Your task to perform on an android device: read, delete, or share a saved page in the chrome app Image 0: 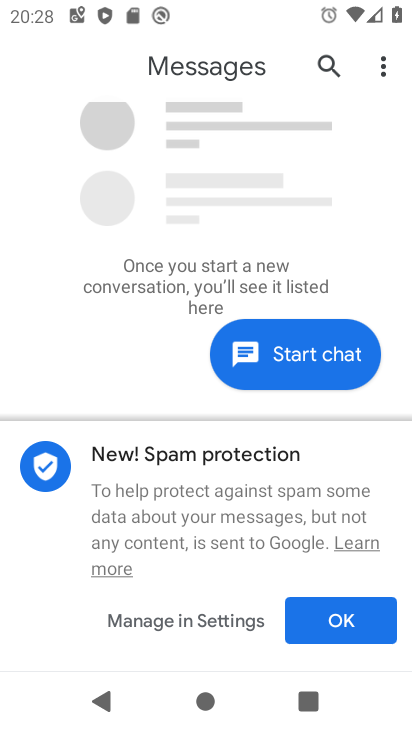
Step 0: press home button
Your task to perform on an android device: read, delete, or share a saved page in the chrome app Image 1: 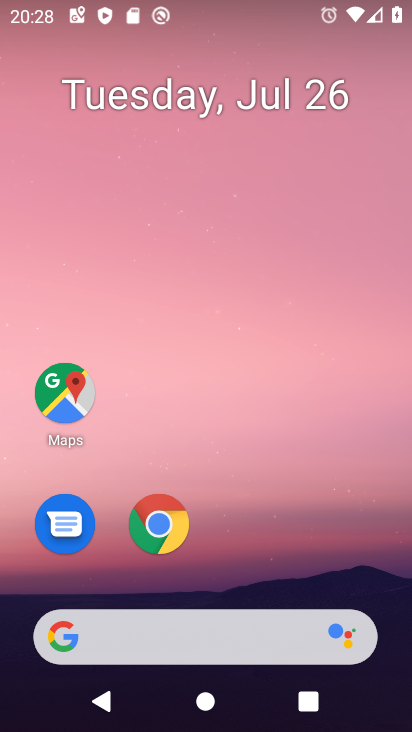
Step 1: click (157, 527)
Your task to perform on an android device: read, delete, or share a saved page in the chrome app Image 2: 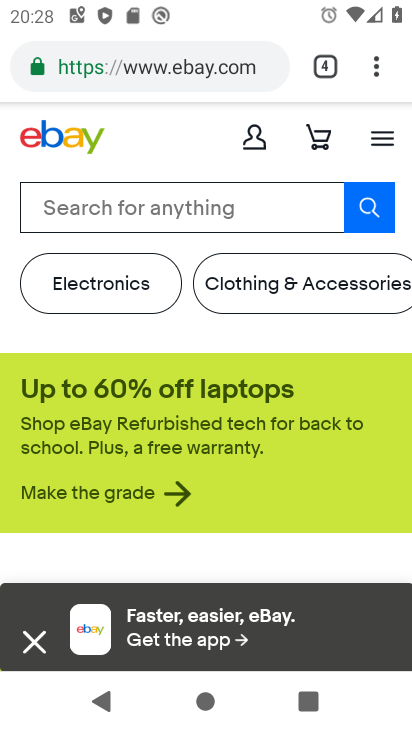
Step 2: click (371, 64)
Your task to perform on an android device: read, delete, or share a saved page in the chrome app Image 3: 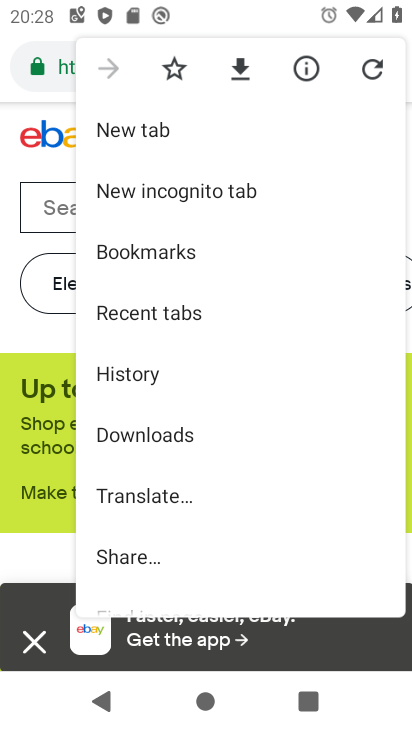
Step 3: click (173, 436)
Your task to perform on an android device: read, delete, or share a saved page in the chrome app Image 4: 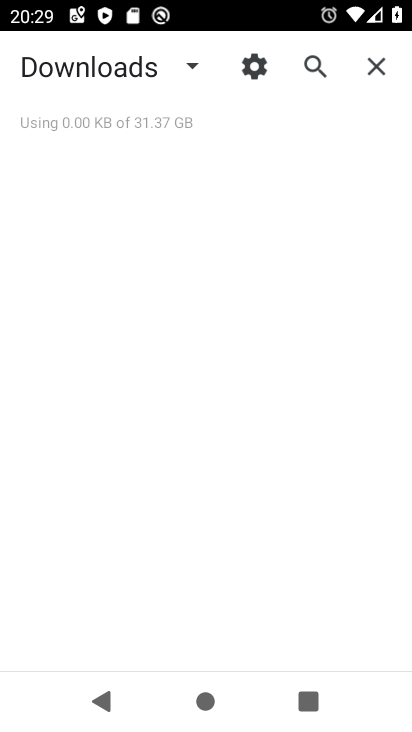
Step 4: task complete